Your task to perform on an android device: turn vacation reply on in the gmail app Image 0: 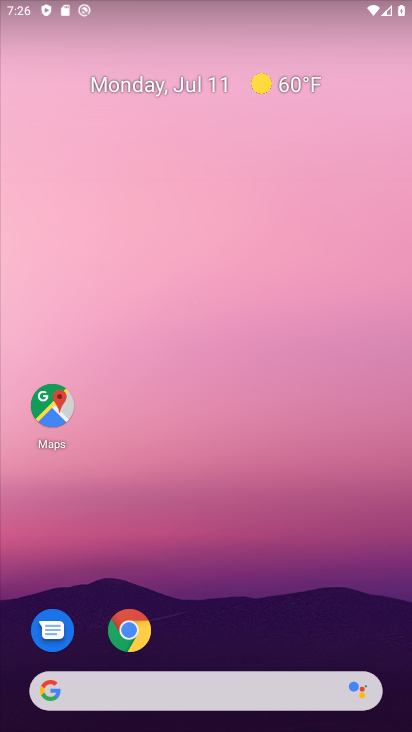
Step 0: drag from (334, 609) to (270, 63)
Your task to perform on an android device: turn vacation reply on in the gmail app Image 1: 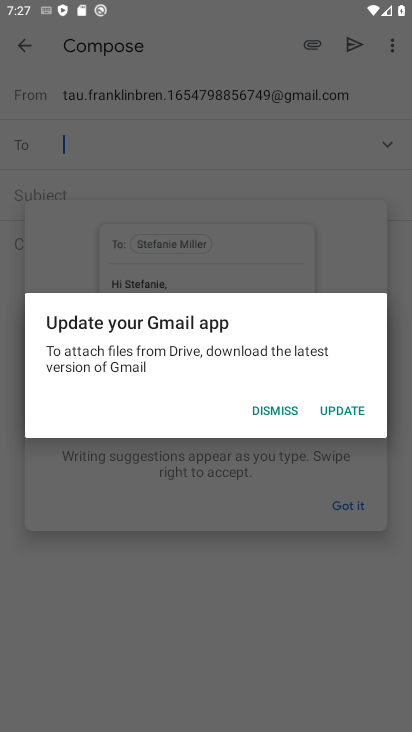
Step 1: press home button
Your task to perform on an android device: turn vacation reply on in the gmail app Image 2: 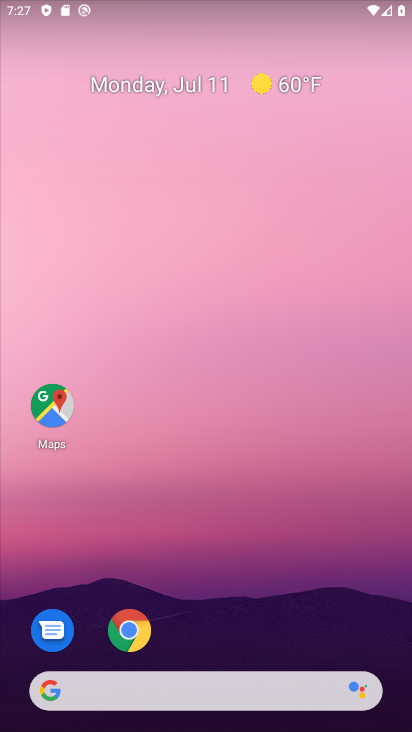
Step 2: drag from (339, 618) to (281, 97)
Your task to perform on an android device: turn vacation reply on in the gmail app Image 3: 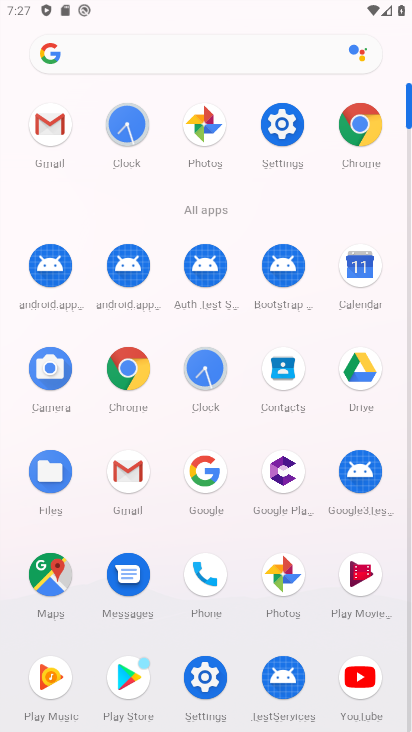
Step 3: click (130, 472)
Your task to perform on an android device: turn vacation reply on in the gmail app Image 4: 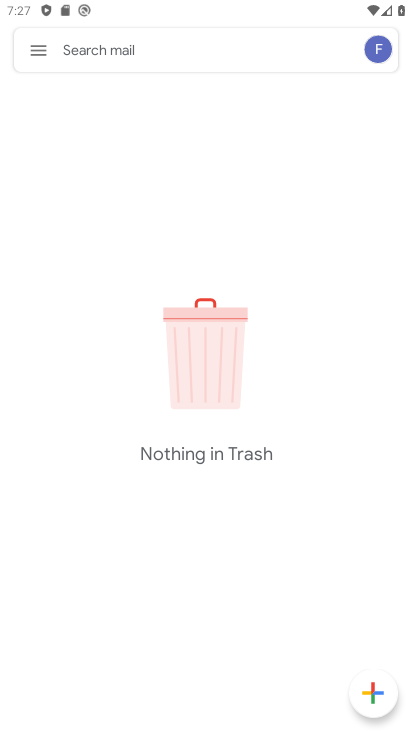
Step 4: click (36, 55)
Your task to perform on an android device: turn vacation reply on in the gmail app Image 5: 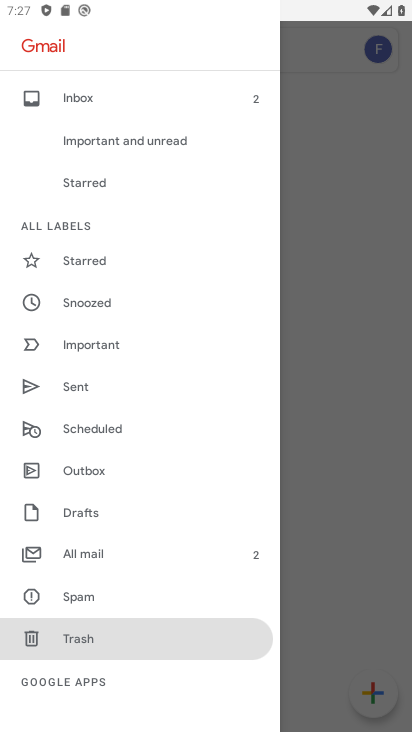
Step 5: drag from (149, 612) to (186, 245)
Your task to perform on an android device: turn vacation reply on in the gmail app Image 6: 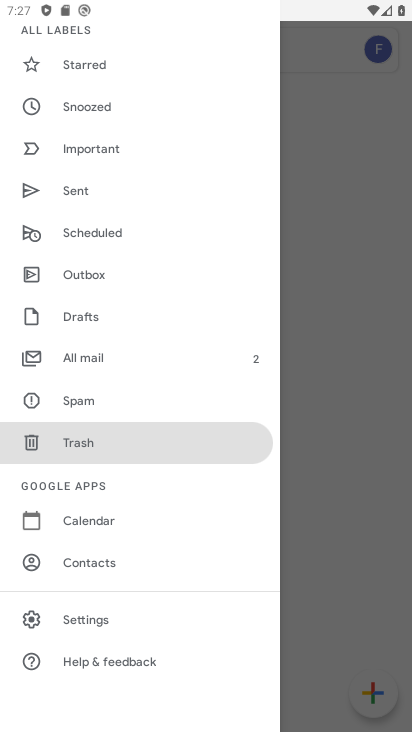
Step 6: drag from (189, 640) to (208, 226)
Your task to perform on an android device: turn vacation reply on in the gmail app Image 7: 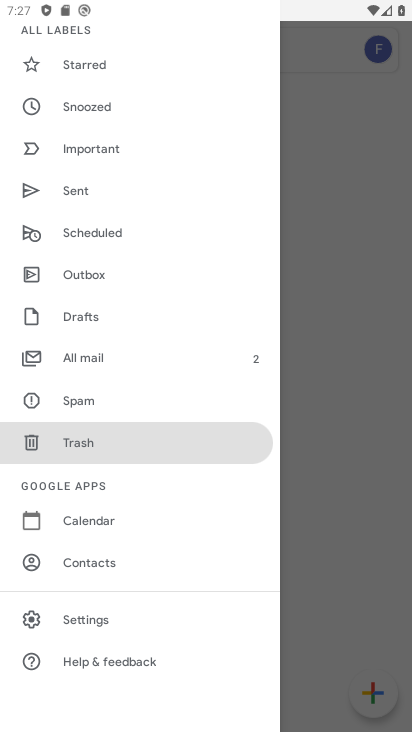
Step 7: click (81, 621)
Your task to perform on an android device: turn vacation reply on in the gmail app Image 8: 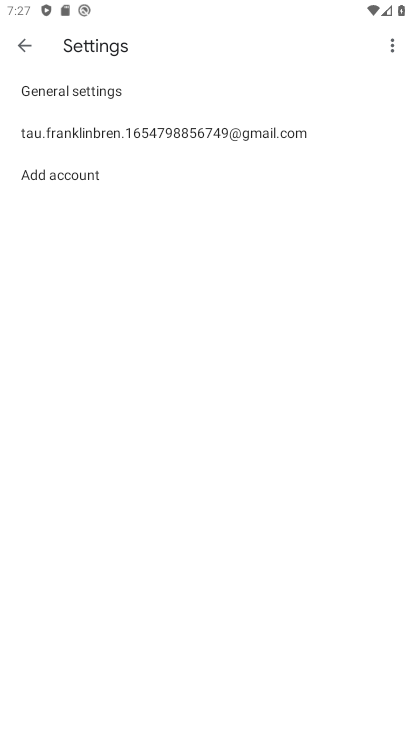
Step 8: click (97, 138)
Your task to perform on an android device: turn vacation reply on in the gmail app Image 9: 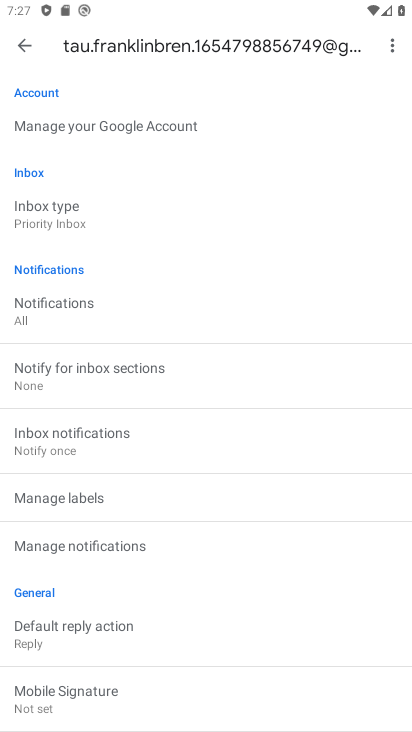
Step 9: drag from (201, 667) to (219, 232)
Your task to perform on an android device: turn vacation reply on in the gmail app Image 10: 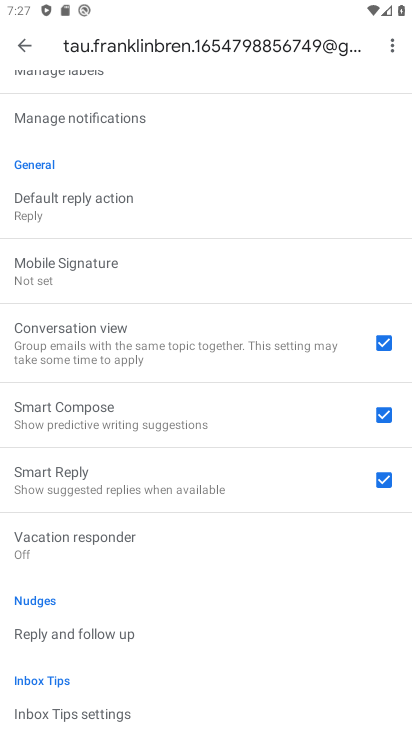
Step 10: click (91, 543)
Your task to perform on an android device: turn vacation reply on in the gmail app Image 11: 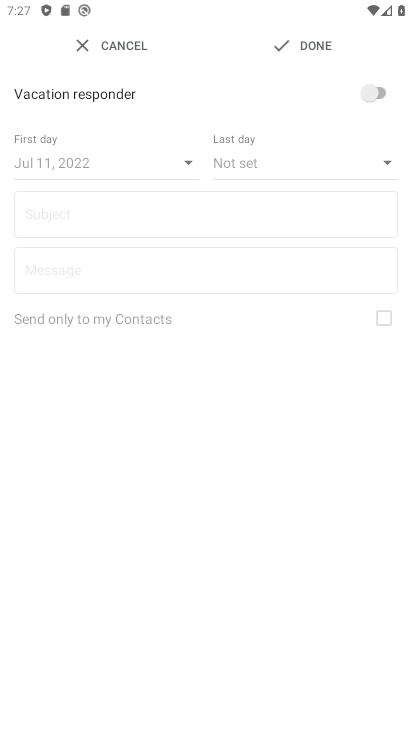
Step 11: click (383, 93)
Your task to perform on an android device: turn vacation reply on in the gmail app Image 12: 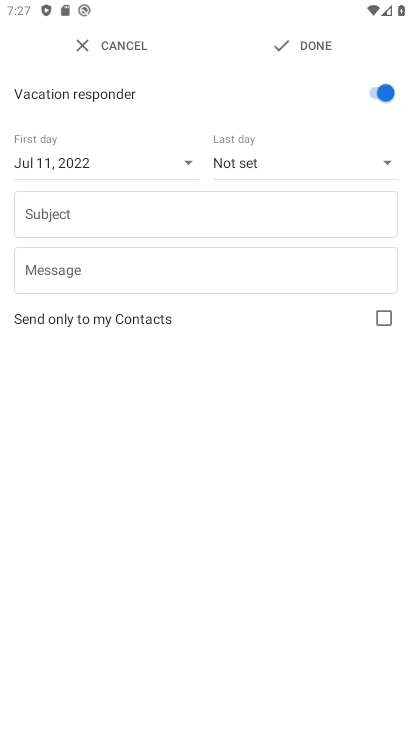
Step 12: task complete